Your task to perform on an android device: toggle notifications settings in the gmail app Image 0: 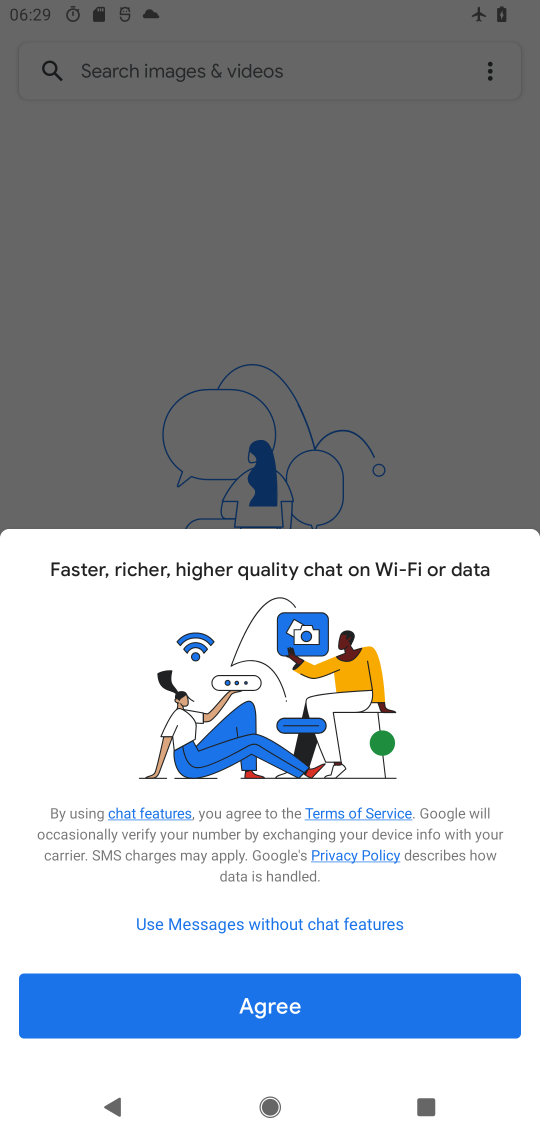
Step 0: press home button
Your task to perform on an android device: toggle notifications settings in the gmail app Image 1: 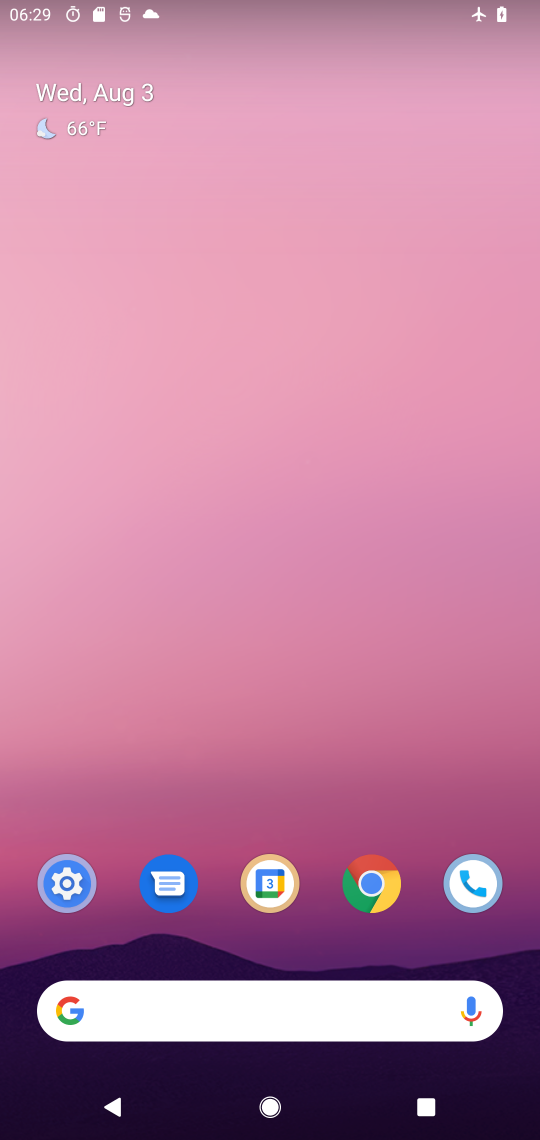
Step 1: drag from (262, 984) to (284, 260)
Your task to perform on an android device: toggle notifications settings in the gmail app Image 2: 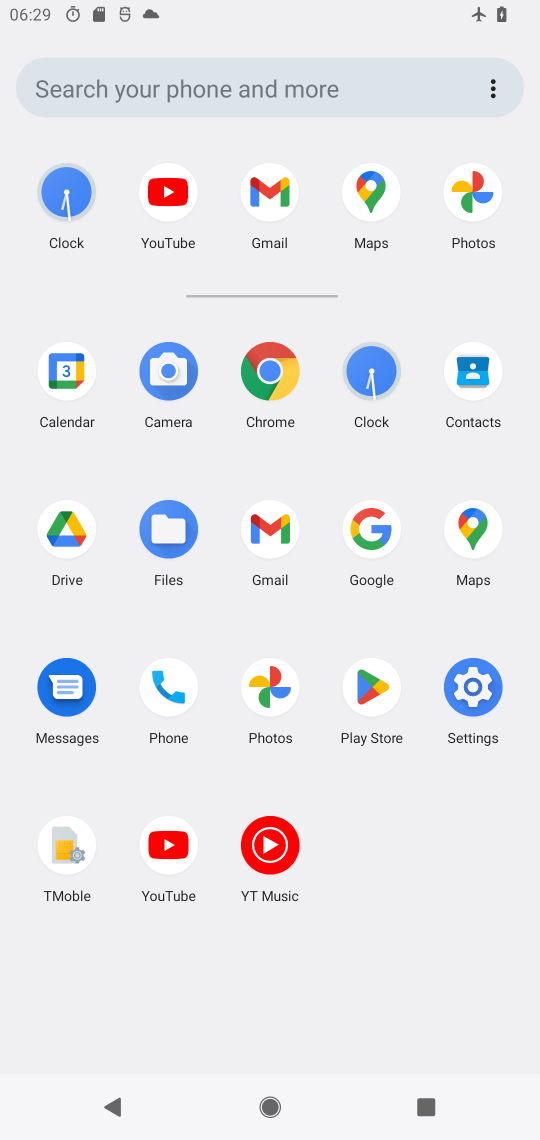
Step 2: click (277, 538)
Your task to perform on an android device: toggle notifications settings in the gmail app Image 3: 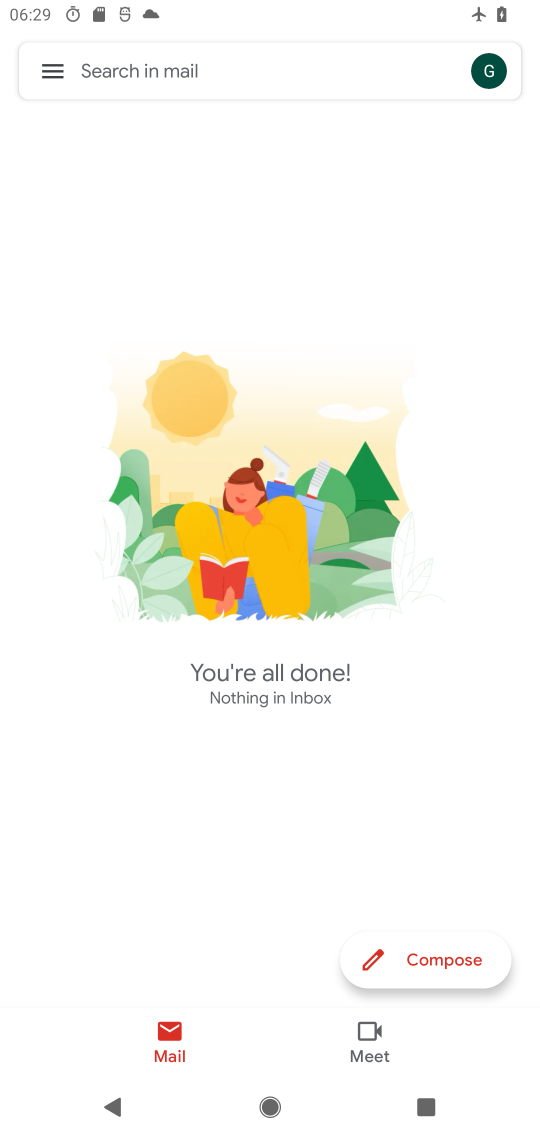
Step 3: click (39, 66)
Your task to perform on an android device: toggle notifications settings in the gmail app Image 4: 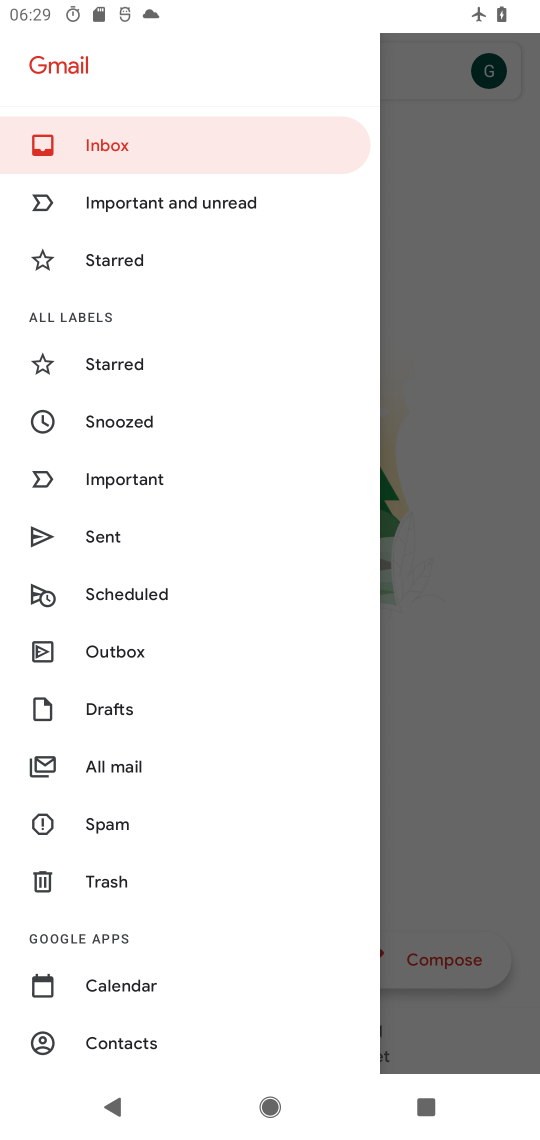
Step 4: drag from (156, 1041) to (224, 318)
Your task to perform on an android device: toggle notifications settings in the gmail app Image 5: 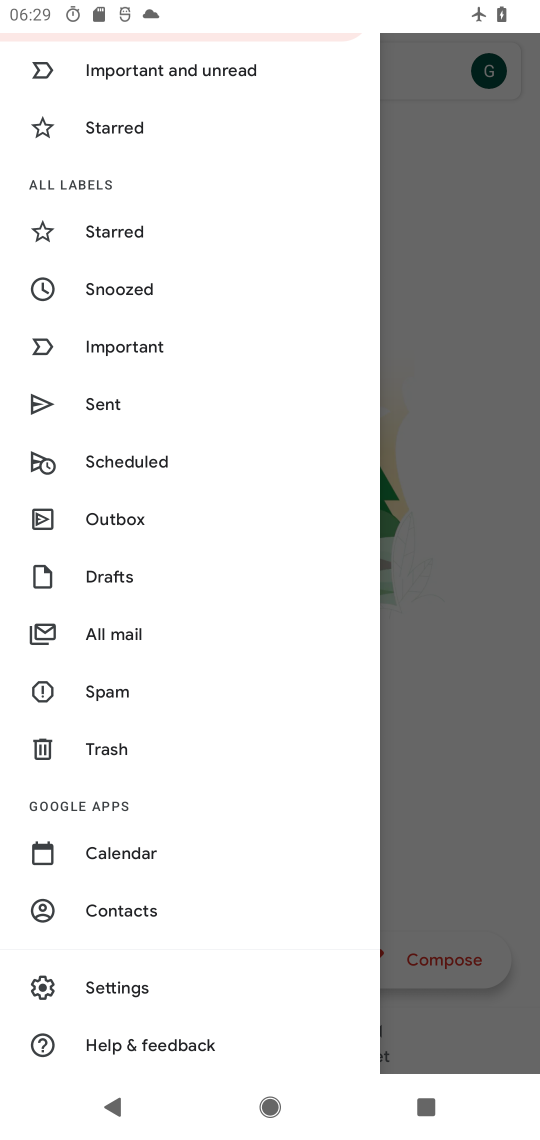
Step 5: click (122, 994)
Your task to perform on an android device: toggle notifications settings in the gmail app Image 6: 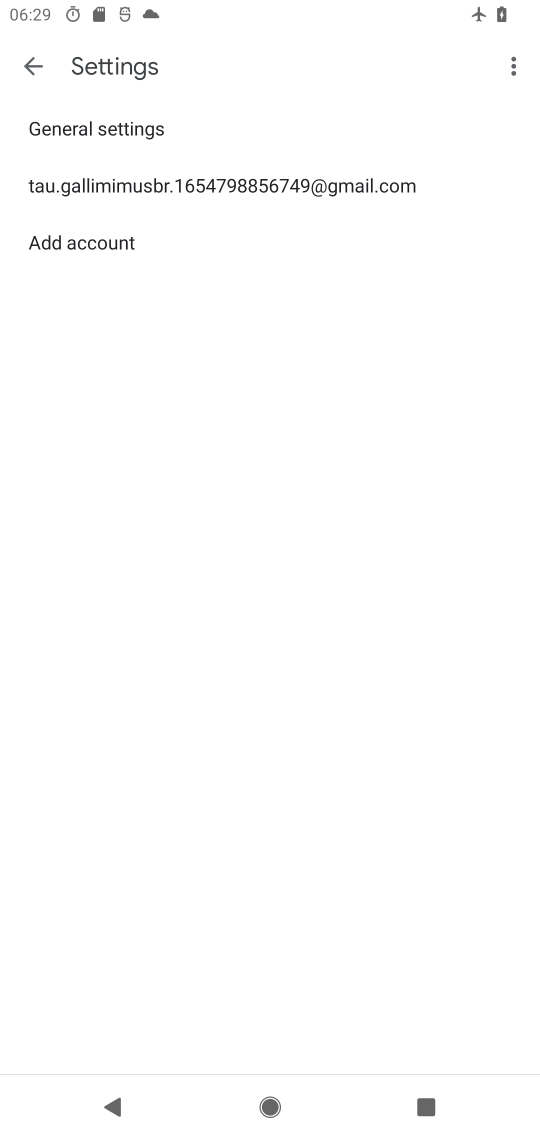
Step 6: click (113, 173)
Your task to perform on an android device: toggle notifications settings in the gmail app Image 7: 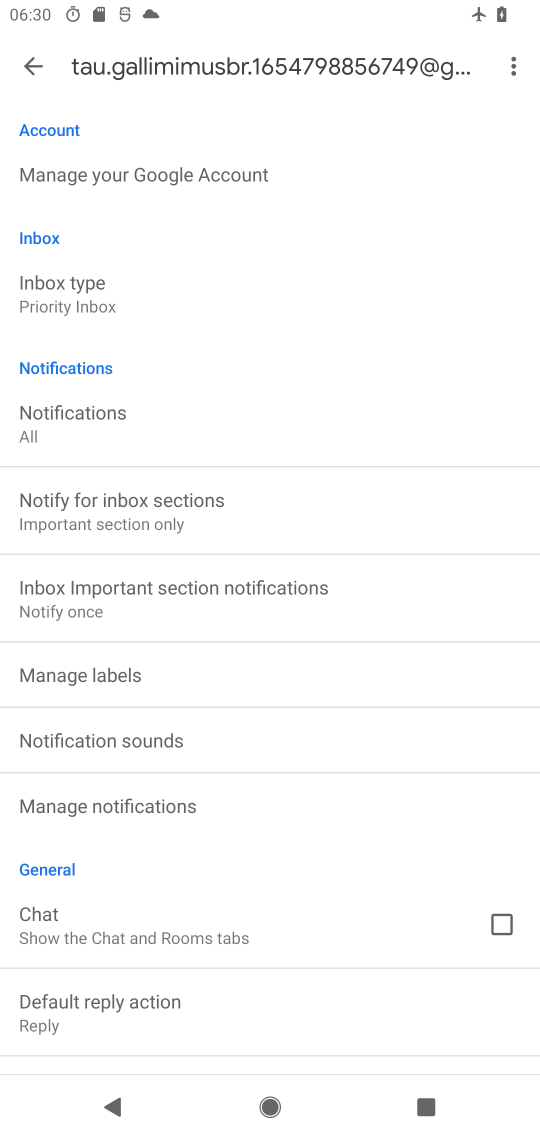
Step 7: click (141, 797)
Your task to perform on an android device: toggle notifications settings in the gmail app Image 8: 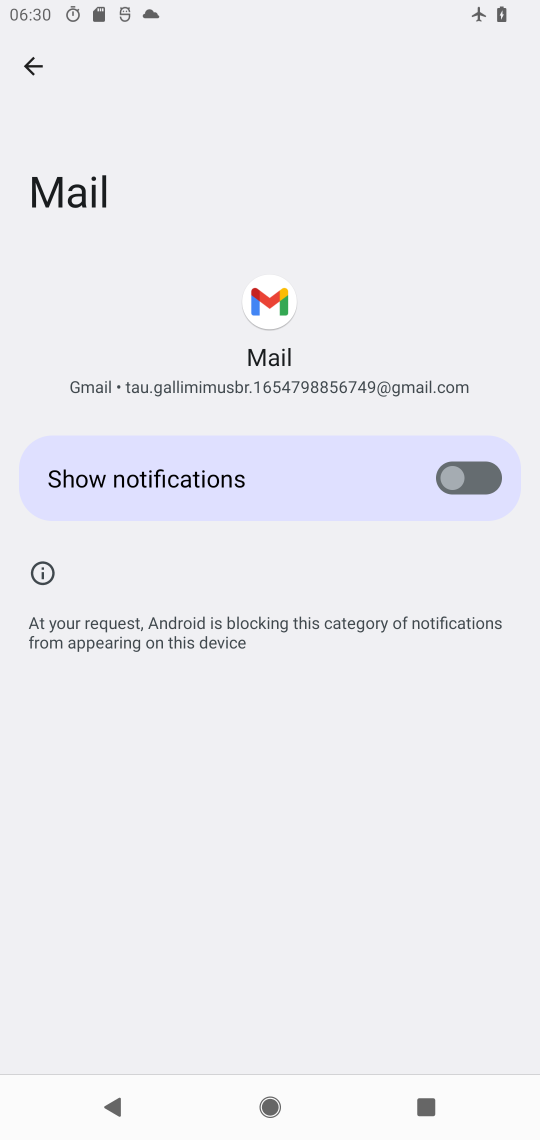
Step 8: click (484, 482)
Your task to perform on an android device: toggle notifications settings in the gmail app Image 9: 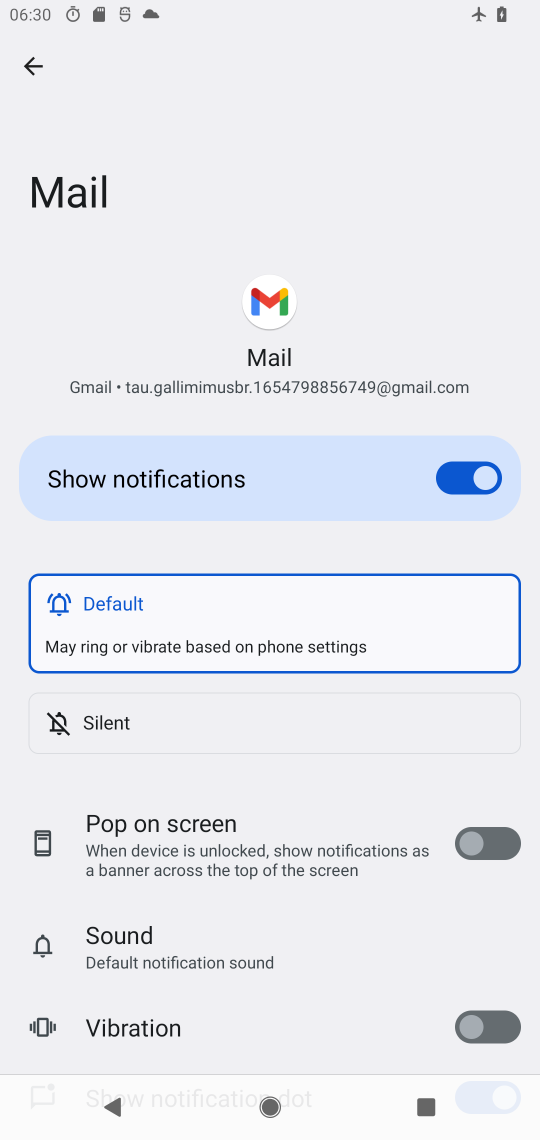
Step 9: task complete